Your task to perform on an android device: change notification settings in the gmail app Image 0: 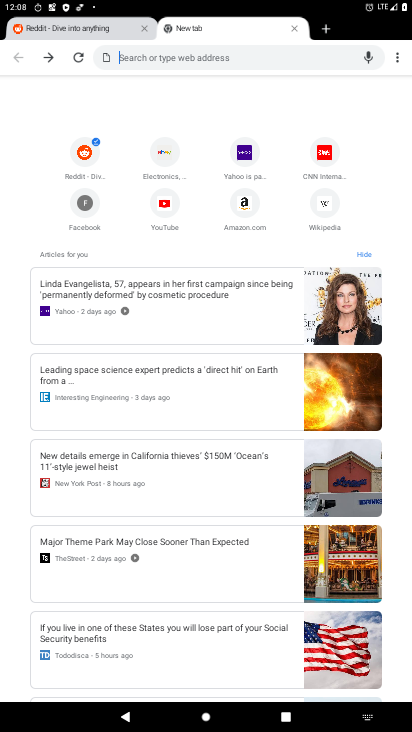
Step 0: press home button
Your task to perform on an android device: change notification settings in the gmail app Image 1: 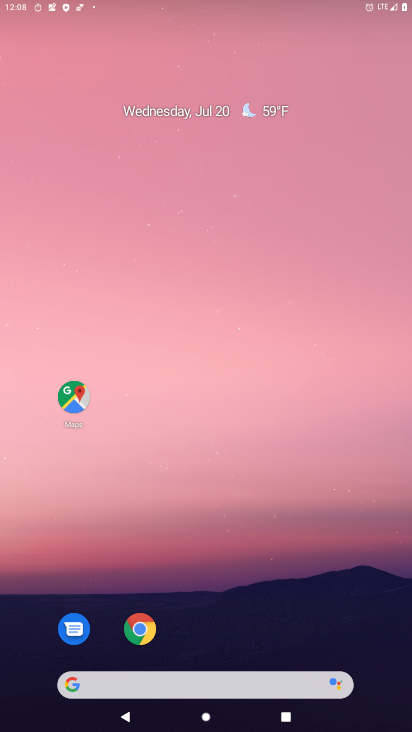
Step 1: drag from (292, 643) to (287, 4)
Your task to perform on an android device: change notification settings in the gmail app Image 2: 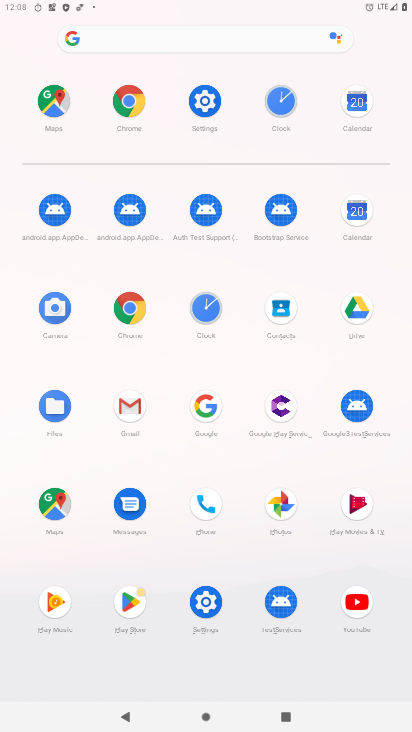
Step 2: click (120, 398)
Your task to perform on an android device: change notification settings in the gmail app Image 3: 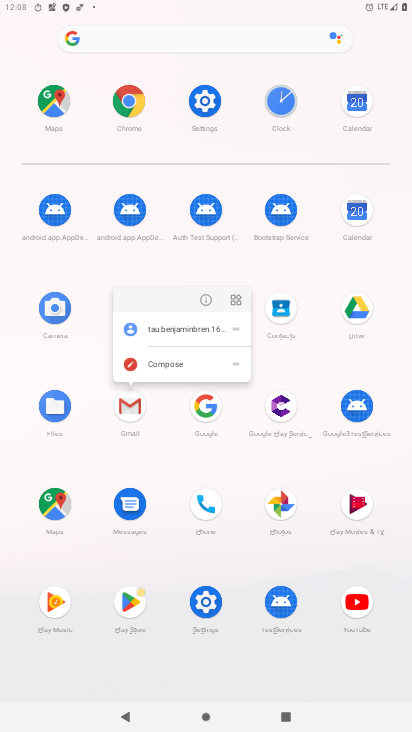
Step 3: click (126, 411)
Your task to perform on an android device: change notification settings in the gmail app Image 4: 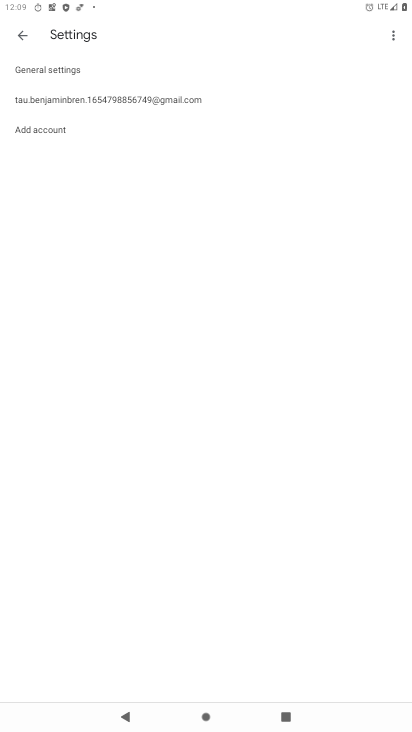
Step 4: click (77, 95)
Your task to perform on an android device: change notification settings in the gmail app Image 5: 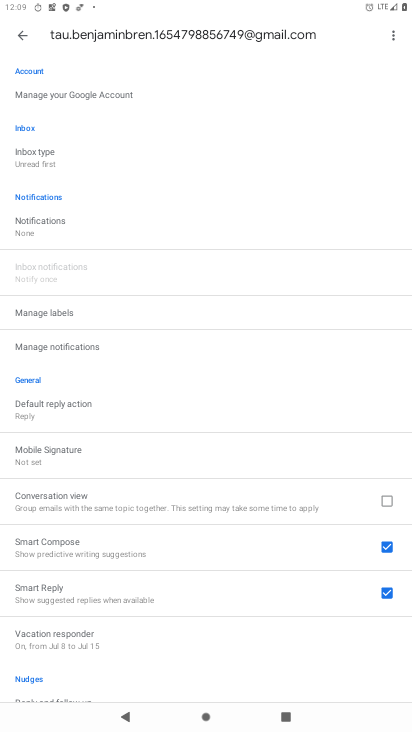
Step 5: click (39, 233)
Your task to perform on an android device: change notification settings in the gmail app Image 6: 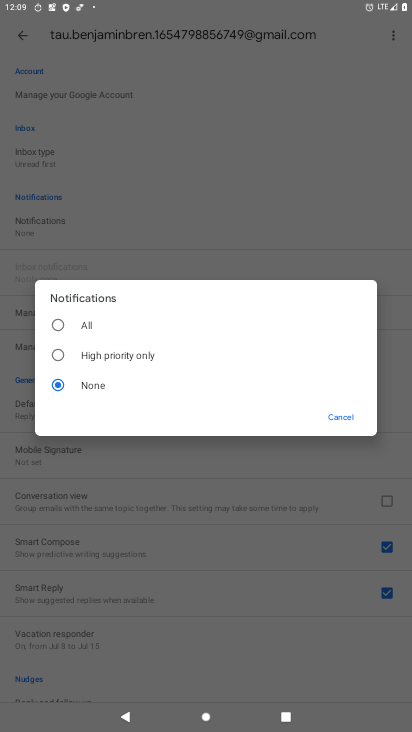
Step 6: click (61, 325)
Your task to perform on an android device: change notification settings in the gmail app Image 7: 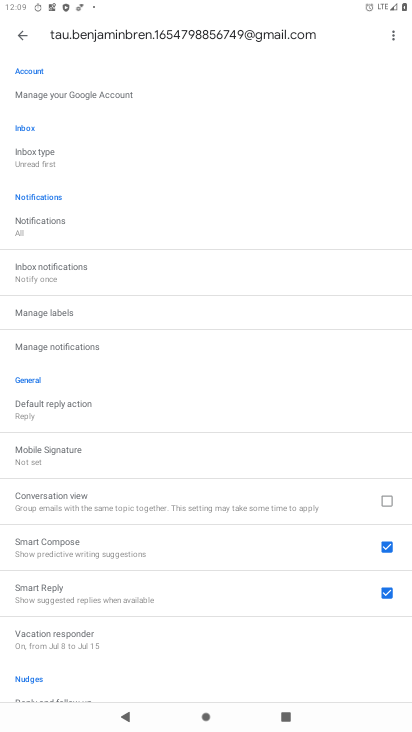
Step 7: task complete